Your task to perform on an android device: Set the phone to "Do not disturb". Image 0: 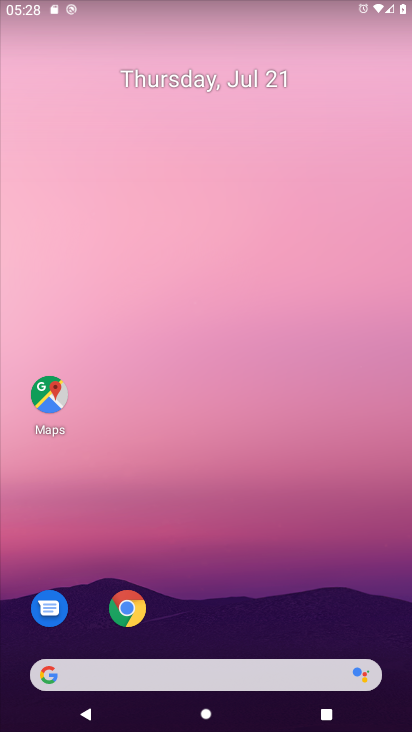
Step 0: drag from (346, 663) to (328, 32)
Your task to perform on an android device: Set the phone to "Do not disturb". Image 1: 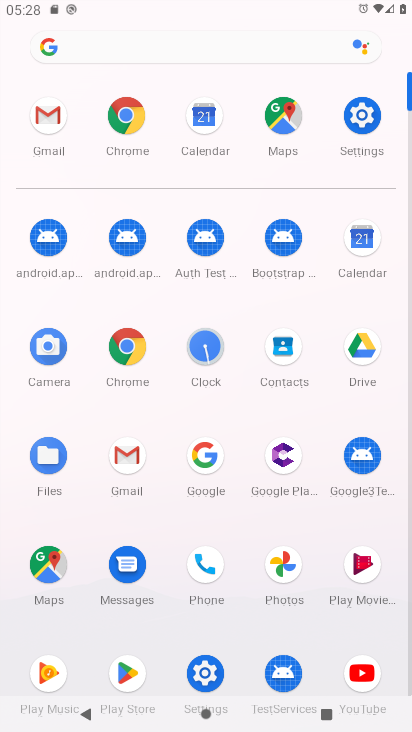
Step 1: click (363, 112)
Your task to perform on an android device: Set the phone to "Do not disturb". Image 2: 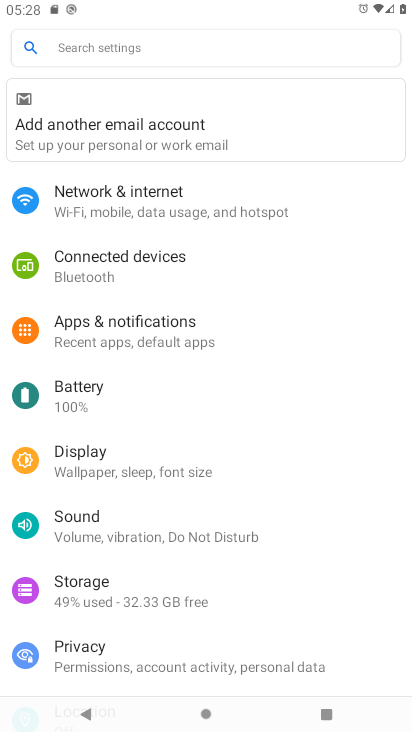
Step 2: click (234, 516)
Your task to perform on an android device: Set the phone to "Do not disturb". Image 3: 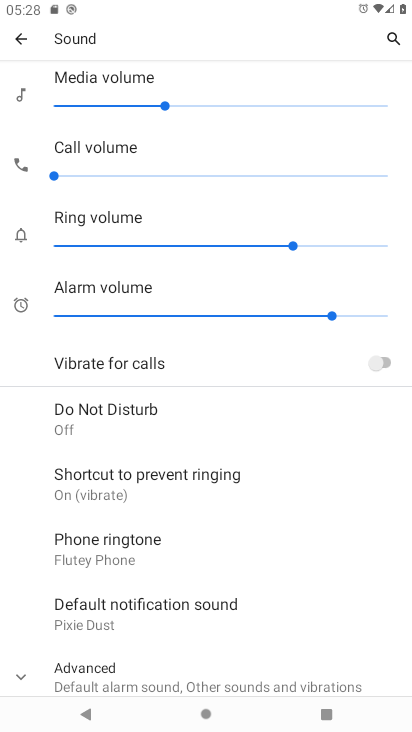
Step 3: click (149, 409)
Your task to perform on an android device: Set the phone to "Do not disturb". Image 4: 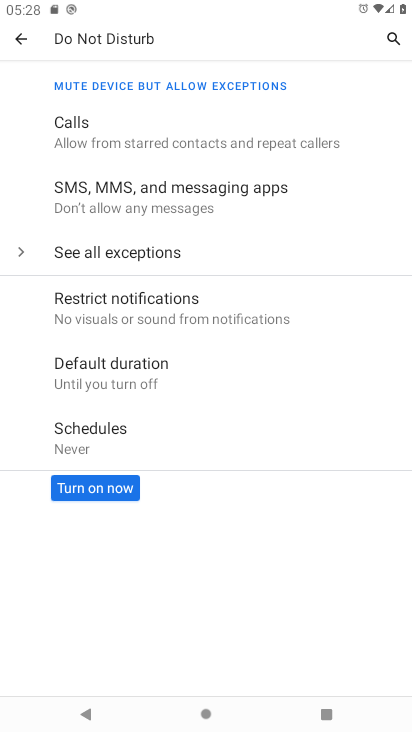
Step 4: click (119, 491)
Your task to perform on an android device: Set the phone to "Do not disturb". Image 5: 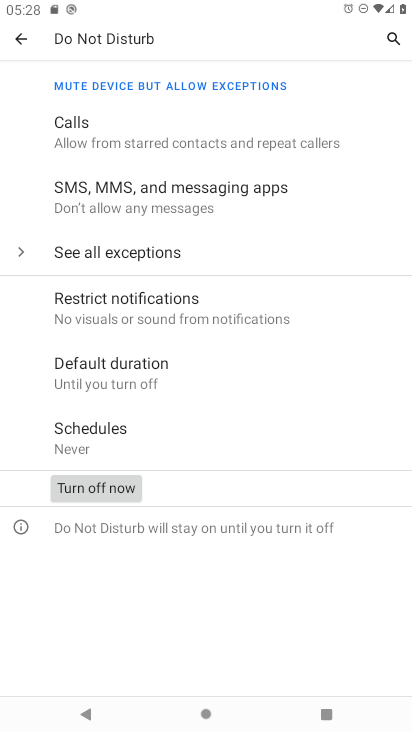
Step 5: task complete